Your task to perform on an android device: Clear all items from cart on newegg.com. Add "logitech g pro" to the cart on newegg.com, then select checkout. Image 0: 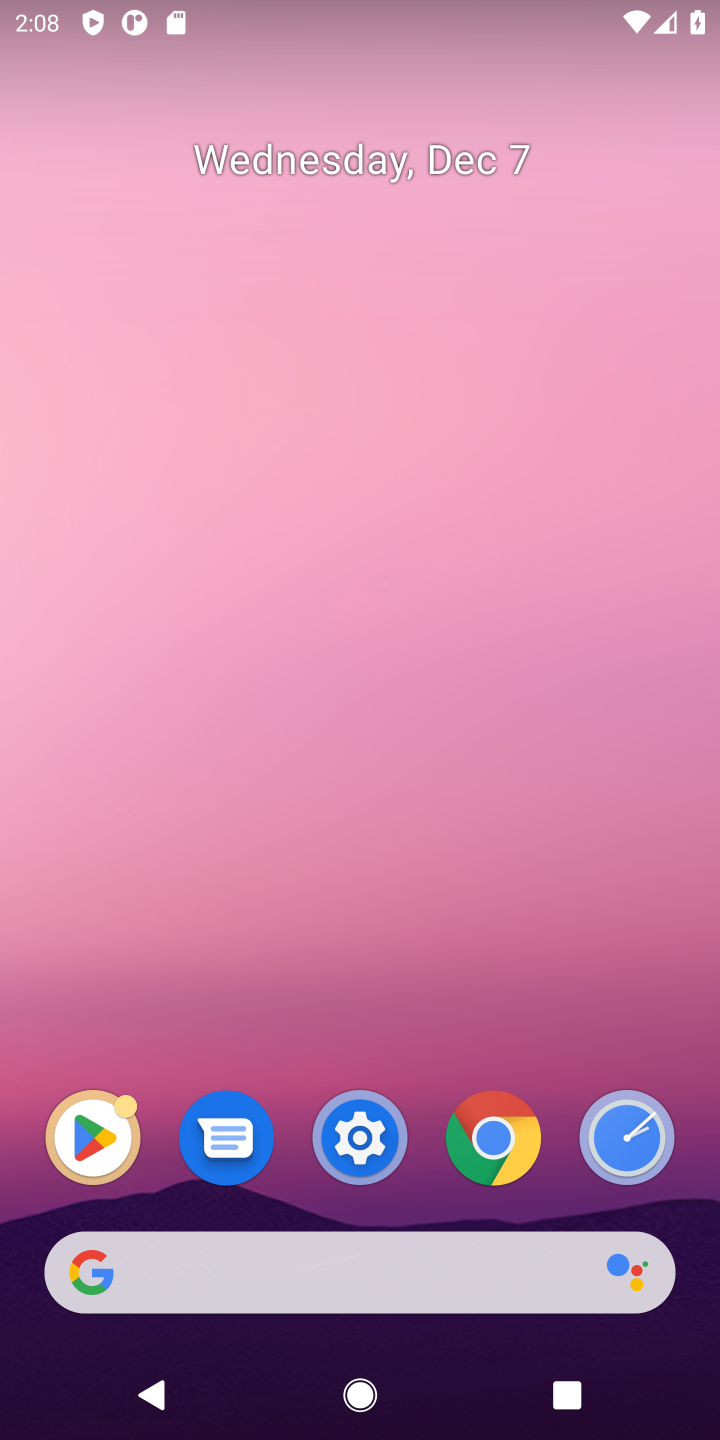
Step 0: click (462, 1260)
Your task to perform on an android device: Clear all items from cart on newegg.com. Add "logitech g pro" to the cart on newegg.com, then select checkout. Image 1: 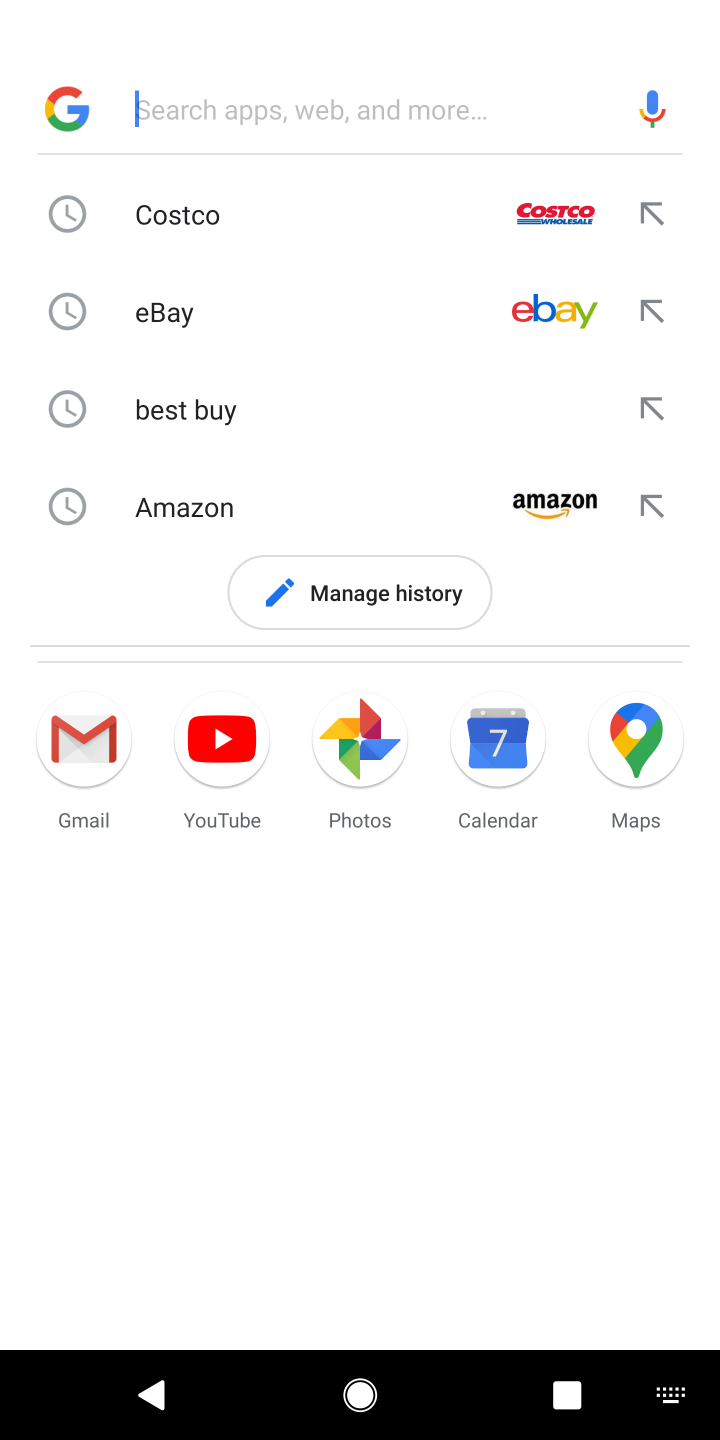
Step 1: type "newegg"
Your task to perform on an android device: Clear all items from cart on newegg.com. Add "logitech g pro" to the cart on newegg.com, then select checkout. Image 2: 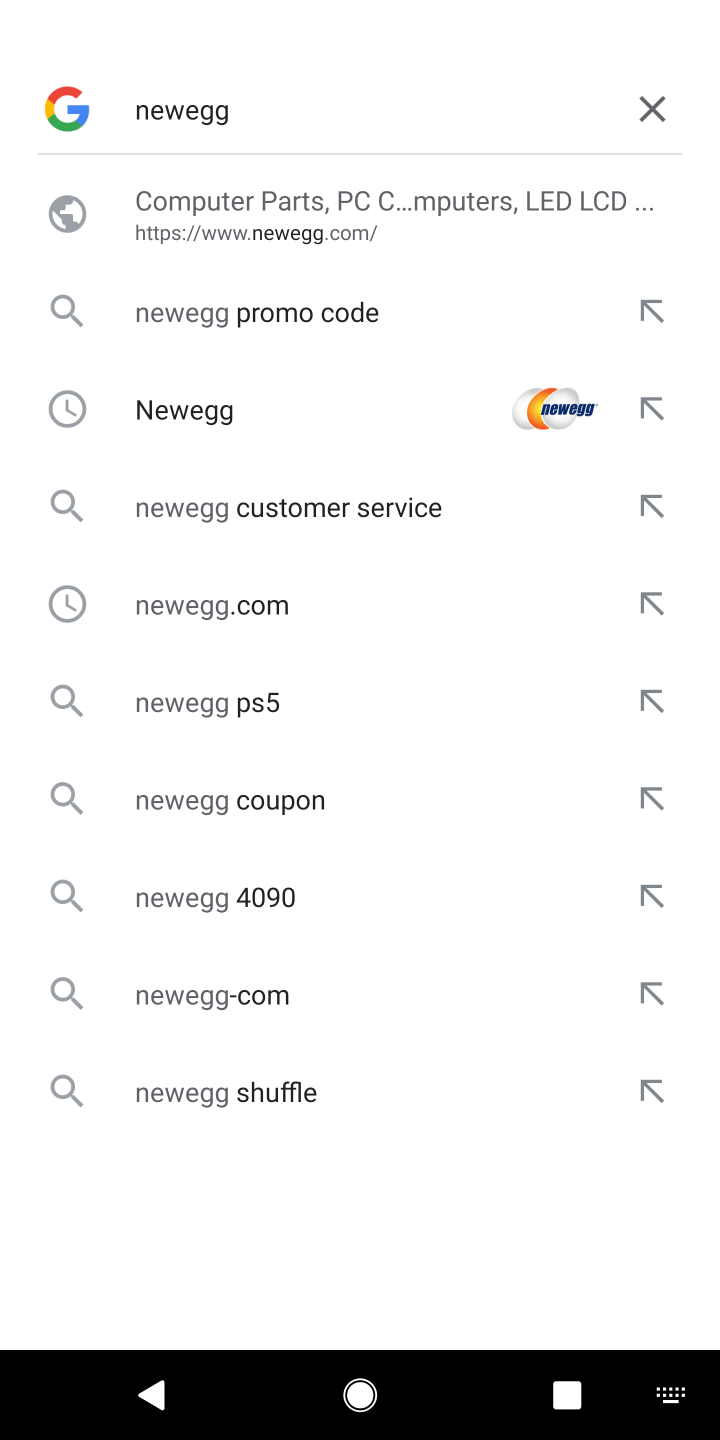
Step 2: click (163, 203)
Your task to perform on an android device: Clear all items from cart on newegg.com. Add "logitech g pro" to the cart on newegg.com, then select checkout. Image 3: 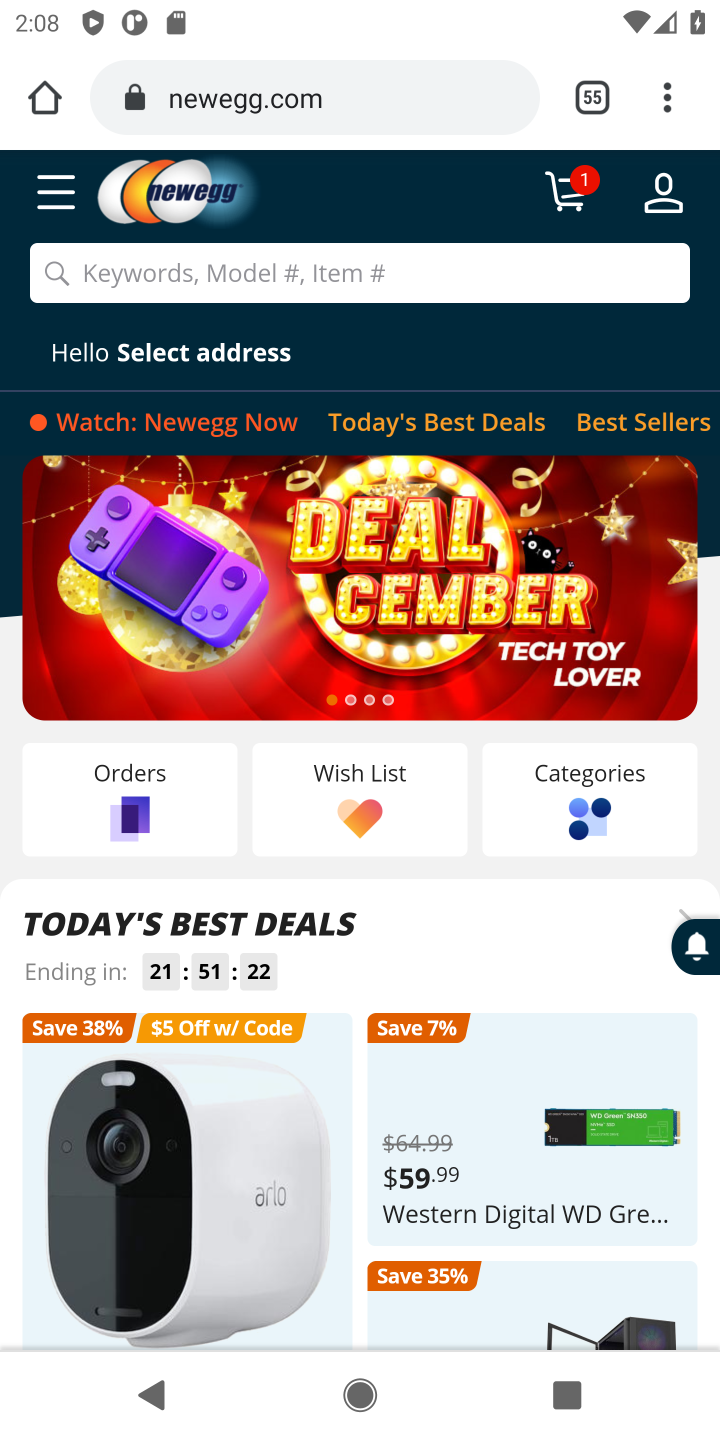
Step 3: task complete